Your task to perform on an android device: Play the last video I watched on Youtube Image 0: 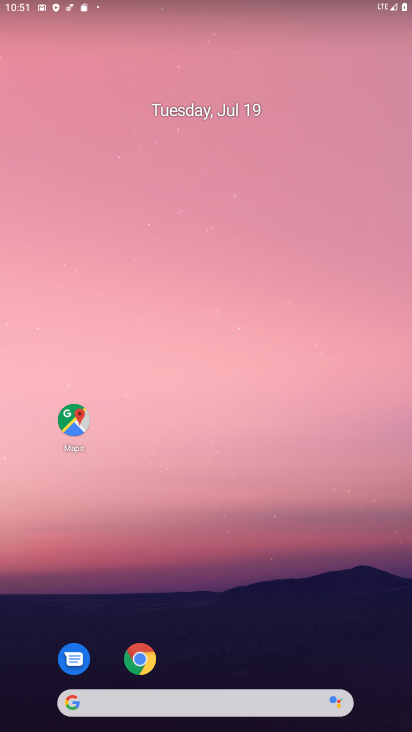
Step 0: drag from (237, 545) to (231, 283)
Your task to perform on an android device: Play the last video I watched on Youtube Image 1: 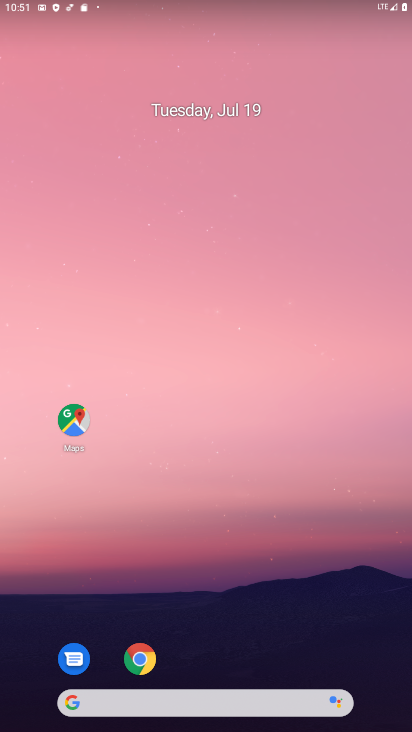
Step 1: drag from (257, 535) to (320, 210)
Your task to perform on an android device: Play the last video I watched on Youtube Image 2: 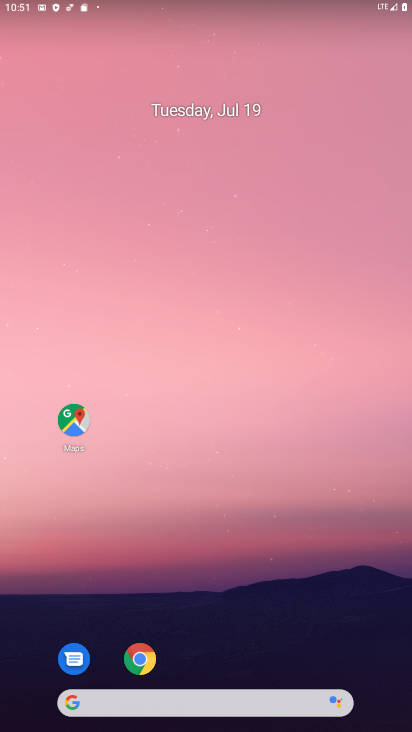
Step 2: drag from (291, 581) to (297, 244)
Your task to perform on an android device: Play the last video I watched on Youtube Image 3: 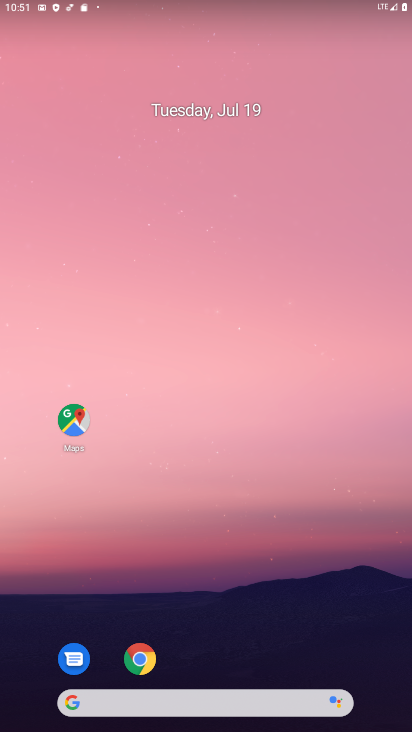
Step 3: drag from (282, 644) to (301, 178)
Your task to perform on an android device: Play the last video I watched on Youtube Image 4: 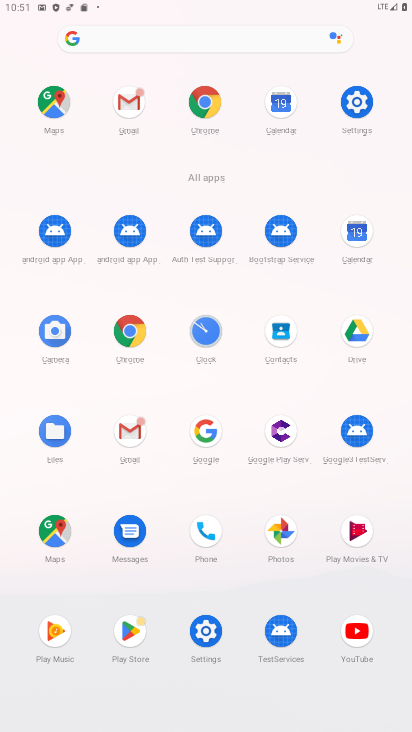
Step 4: click (357, 630)
Your task to perform on an android device: Play the last video I watched on Youtube Image 5: 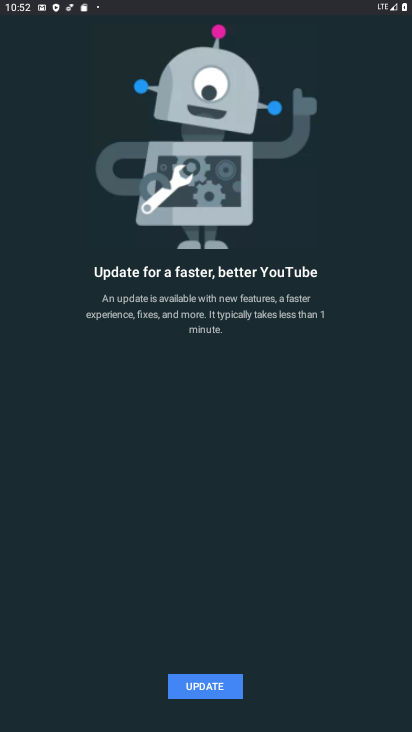
Step 5: task complete